Your task to perform on an android device: check storage Image 0: 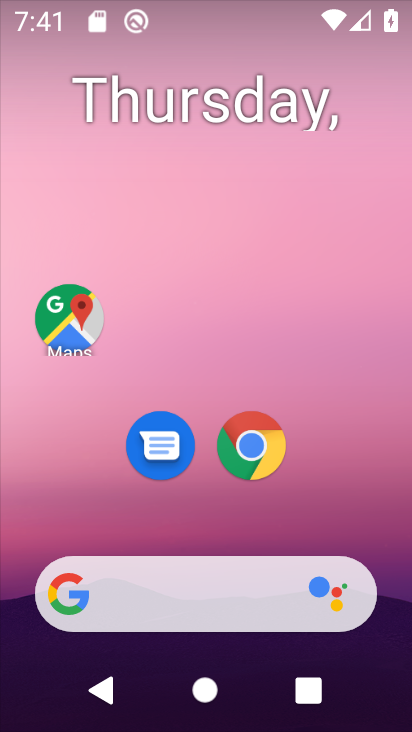
Step 0: drag from (376, 657) to (55, 3)
Your task to perform on an android device: check storage Image 1: 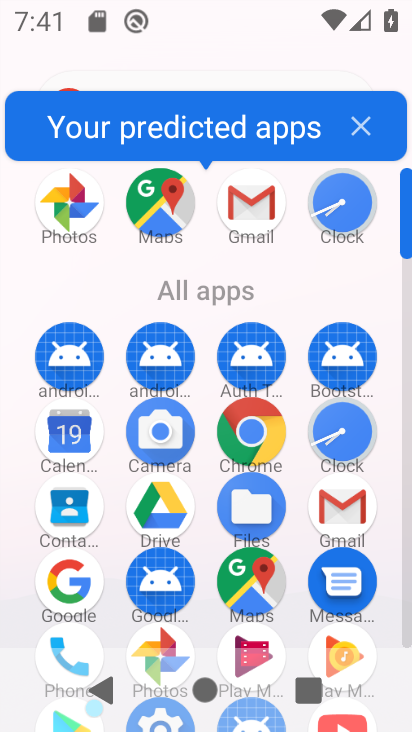
Step 1: drag from (334, 571) to (141, 31)
Your task to perform on an android device: check storage Image 2: 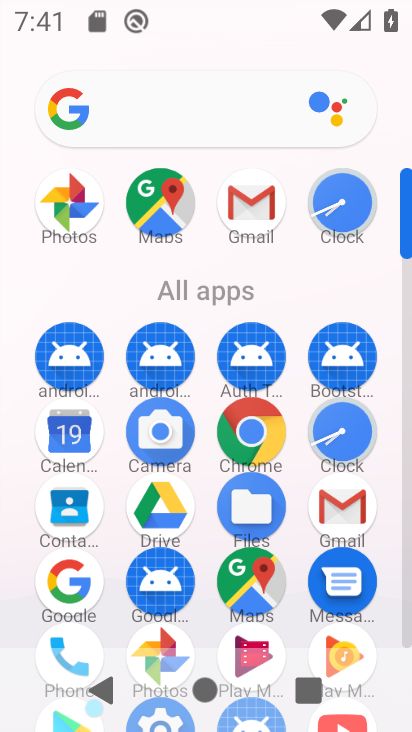
Step 2: drag from (222, 413) to (172, 126)
Your task to perform on an android device: check storage Image 3: 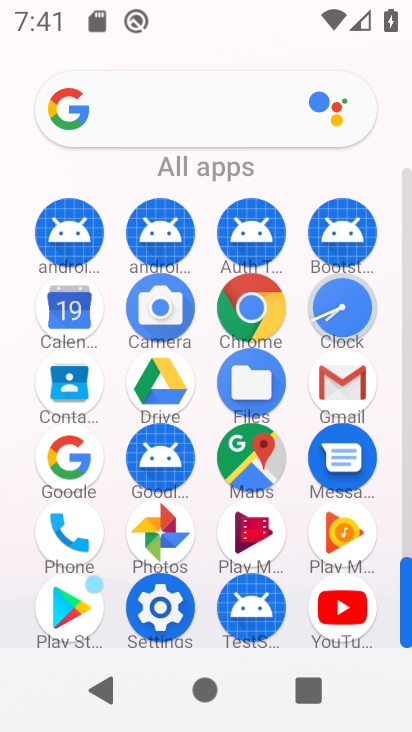
Step 3: drag from (234, 499) to (204, 137)
Your task to perform on an android device: check storage Image 4: 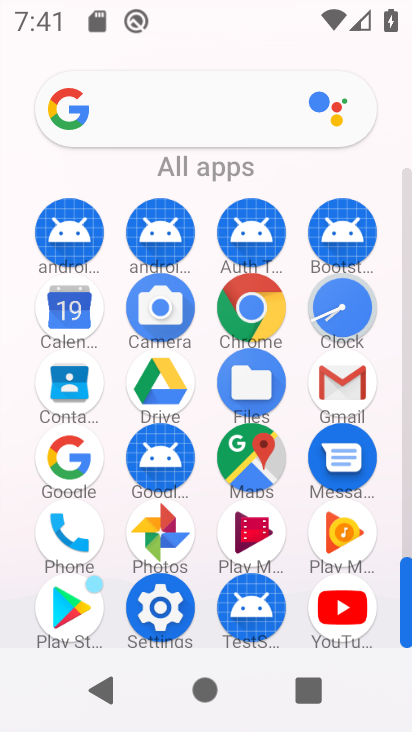
Step 4: click (152, 604)
Your task to perform on an android device: check storage Image 5: 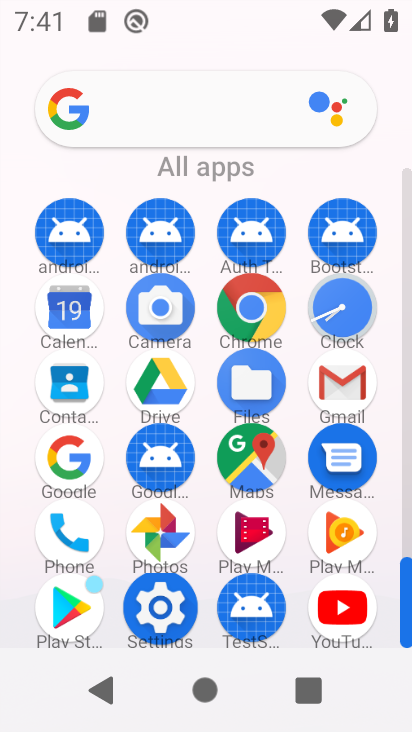
Step 5: click (154, 603)
Your task to perform on an android device: check storage Image 6: 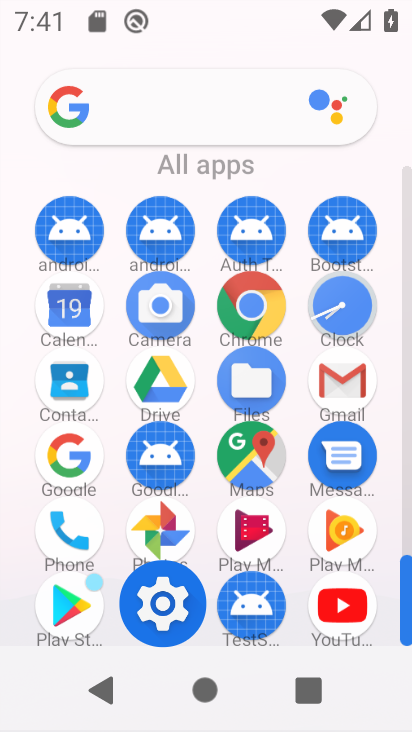
Step 6: click (157, 605)
Your task to perform on an android device: check storage Image 7: 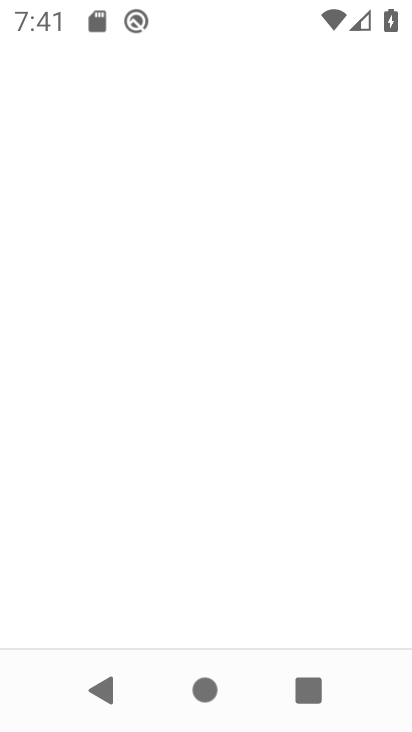
Step 7: click (157, 605)
Your task to perform on an android device: check storage Image 8: 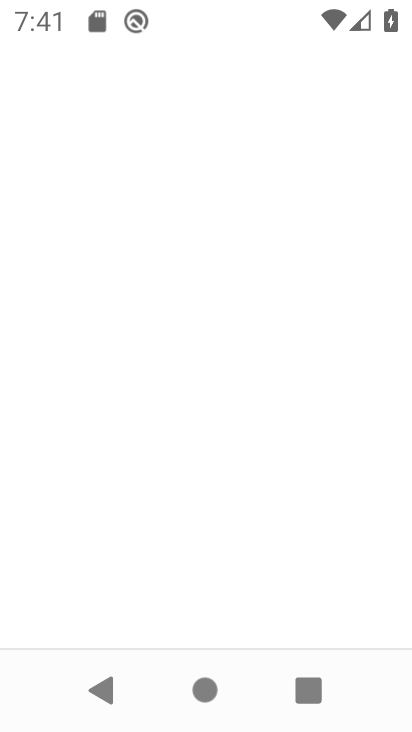
Step 8: click (157, 605)
Your task to perform on an android device: check storage Image 9: 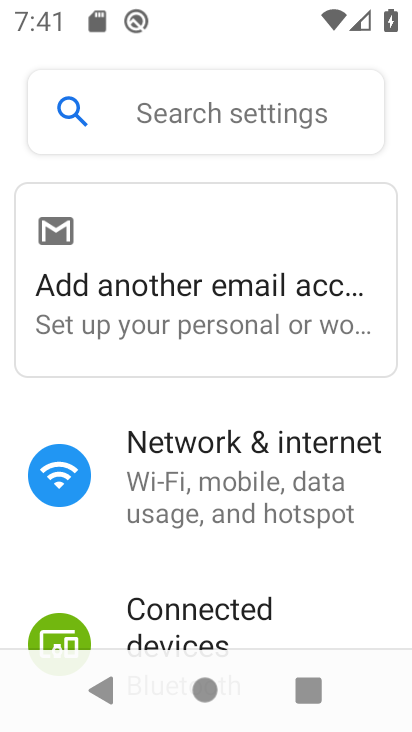
Step 9: drag from (233, 513) to (232, 145)
Your task to perform on an android device: check storage Image 10: 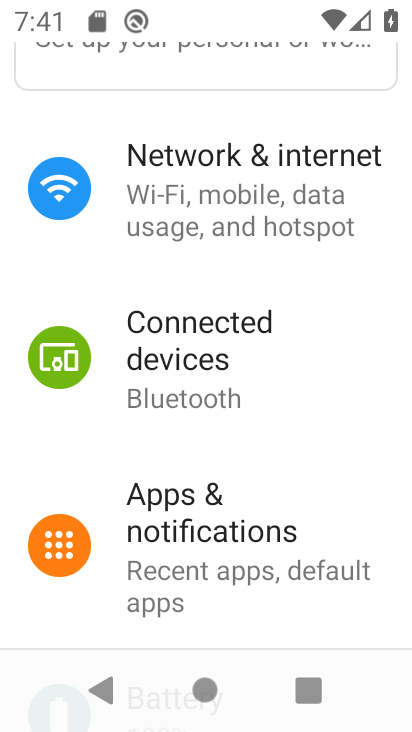
Step 10: drag from (240, 482) to (165, 17)
Your task to perform on an android device: check storage Image 11: 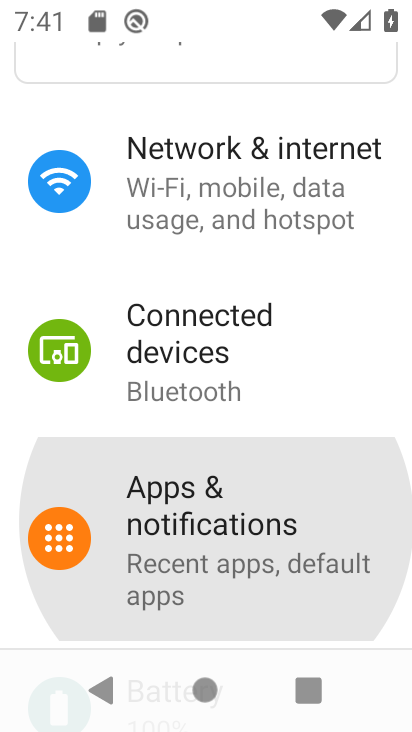
Step 11: drag from (215, 466) to (147, 166)
Your task to perform on an android device: check storage Image 12: 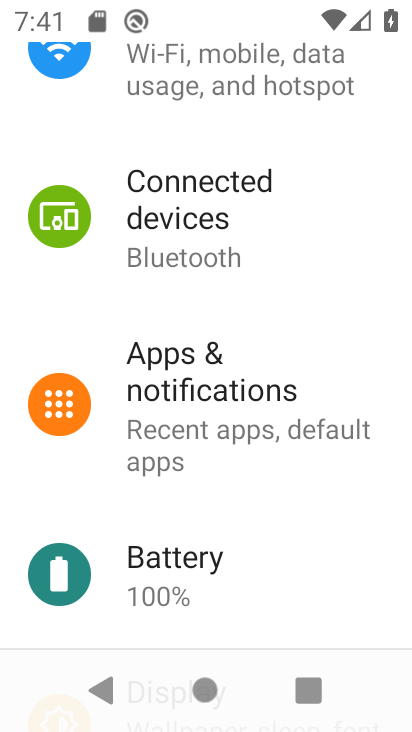
Step 12: drag from (183, 498) to (167, 42)
Your task to perform on an android device: check storage Image 13: 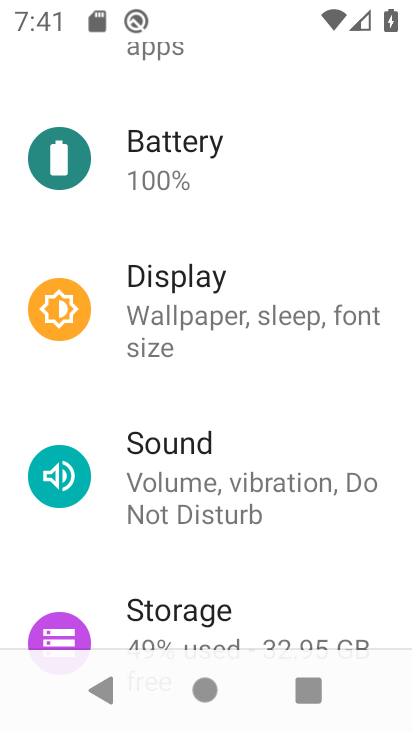
Step 13: drag from (176, 375) to (169, 87)
Your task to perform on an android device: check storage Image 14: 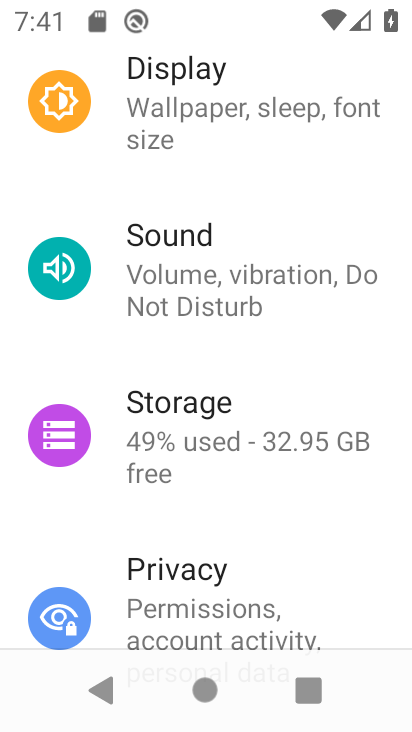
Step 14: click (181, 419)
Your task to perform on an android device: check storage Image 15: 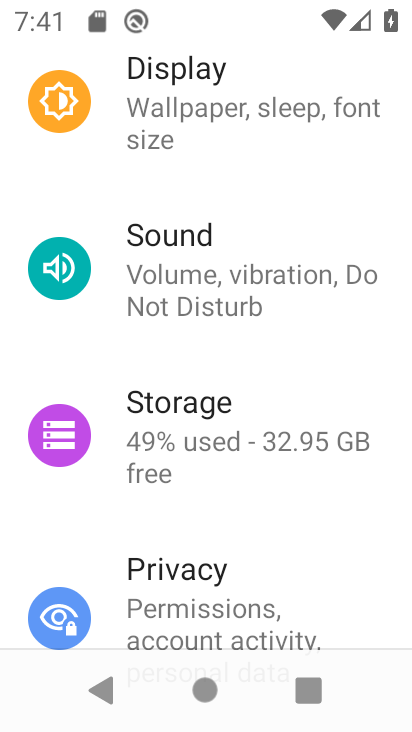
Step 15: click (178, 419)
Your task to perform on an android device: check storage Image 16: 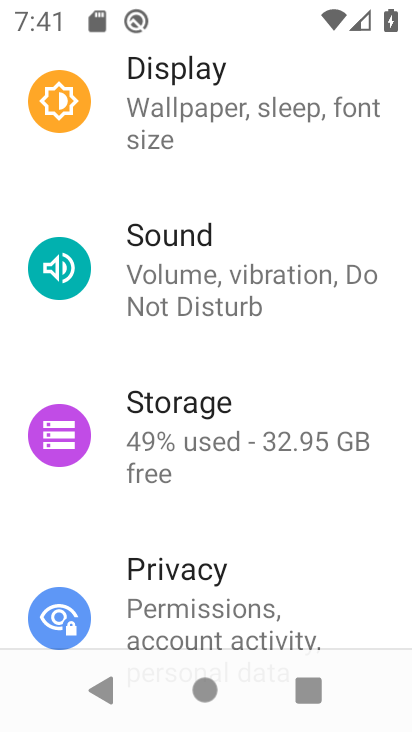
Step 16: click (169, 412)
Your task to perform on an android device: check storage Image 17: 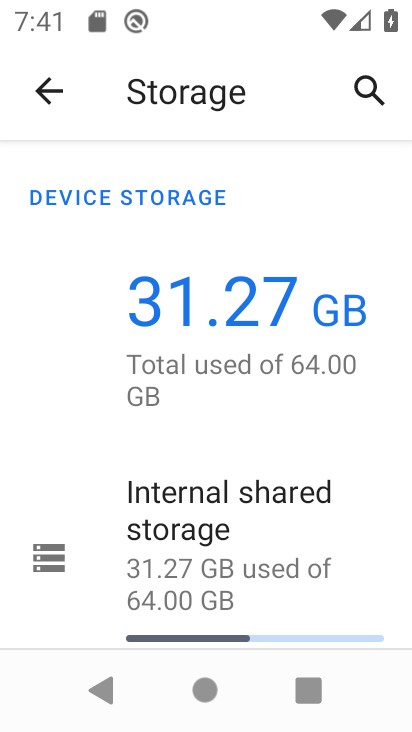
Step 17: task complete